Your task to perform on an android device: open the mobile data screen to see how much data has been used Image 0: 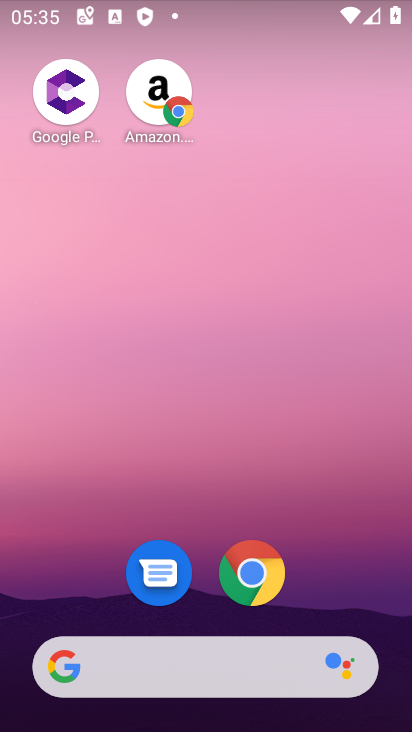
Step 0: drag from (224, 455) to (266, 28)
Your task to perform on an android device: open the mobile data screen to see how much data has been used Image 1: 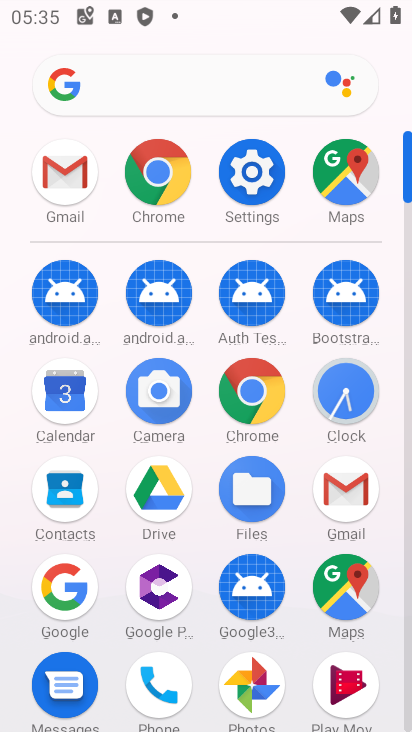
Step 1: click (247, 152)
Your task to perform on an android device: open the mobile data screen to see how much data has been used Image 2: 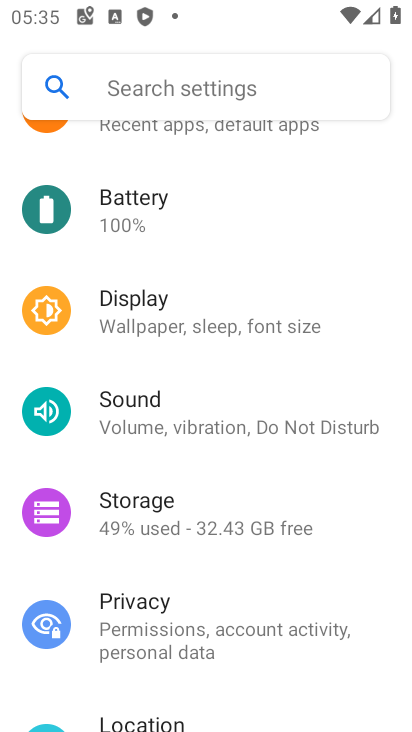
Step 2: drag from (264, 199) to (276, 711)
Your task to perform on an android device: open the mobile data screen to see how much data has been used Image 3: 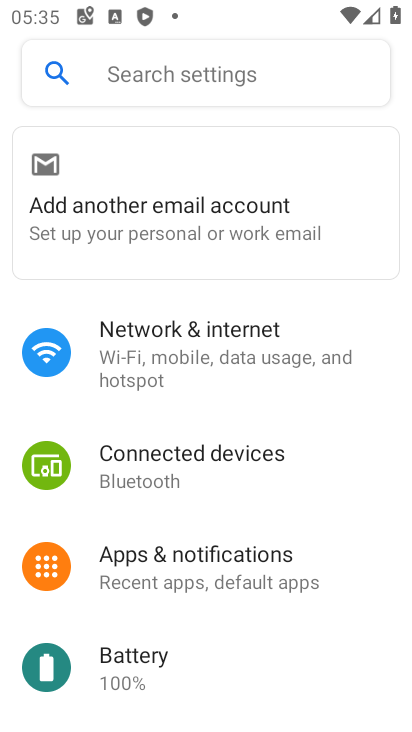
Step 3: click (220, 353)
Your task to perform on an android device: open the mobile data screen to see how much data has been used Image 4: 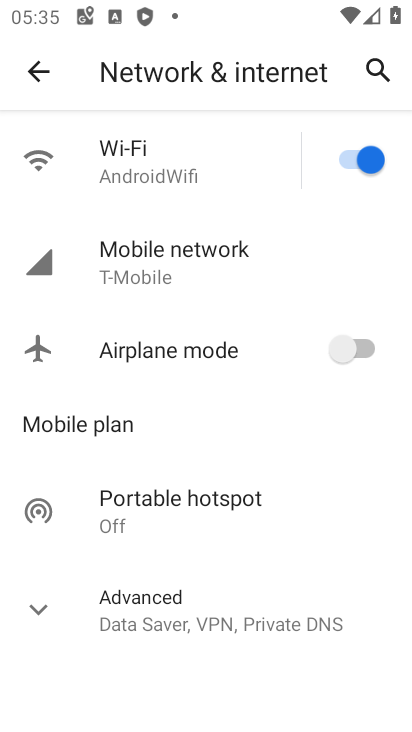
Step 4: click (185, 252)
Your task to perform on an android device: open the mobile data screen to see how much data has been used Image 5: 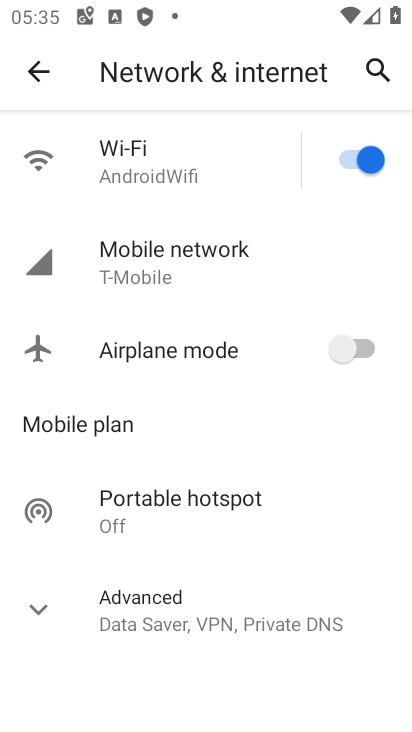
Step 5: task complete